Your task to perform on an android device: install app "Pluto TV - Live TV and Movies" Image 0: 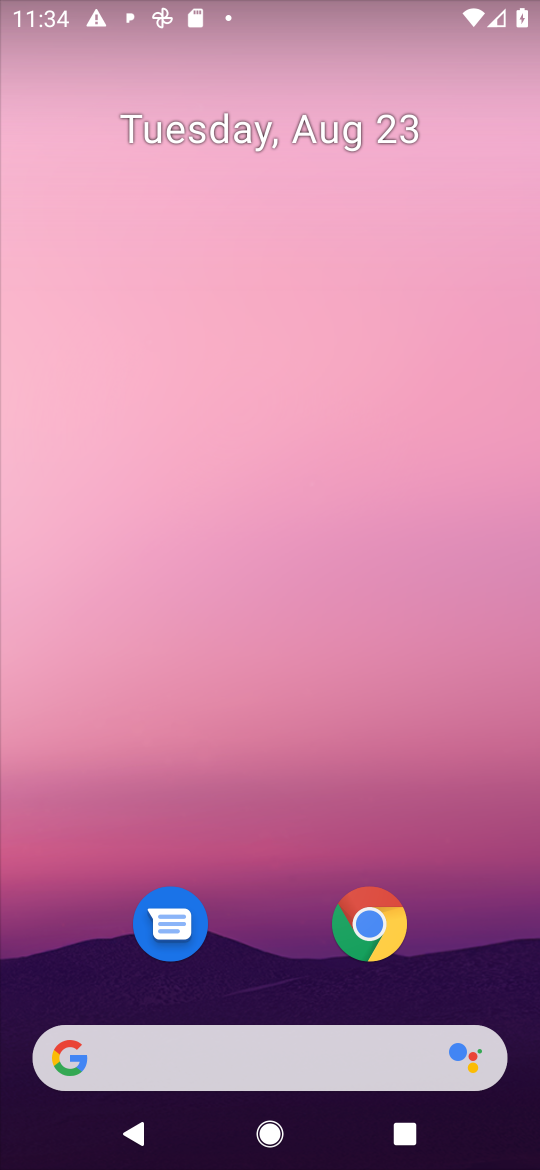
Step 0: press home button
Your task to perform on an android device: install app "Pluto TV - Live TV and Movies" Image 1: 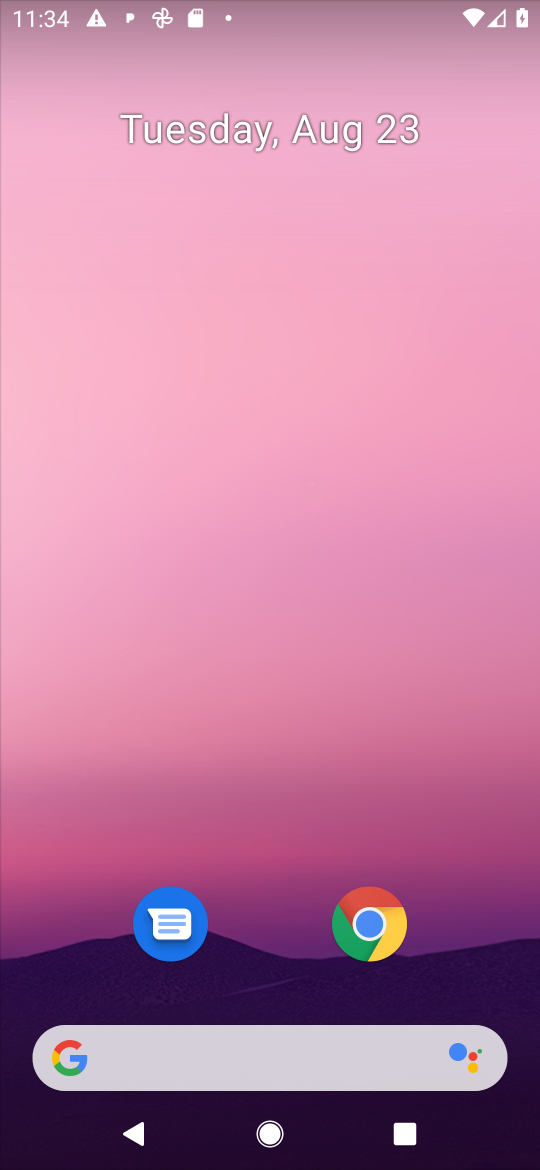
Step 1: drag from (477, 949) to (524, 81)
Your task to perform on an android device: install app "Pluto TV - Live TV and Movies" Image 2: 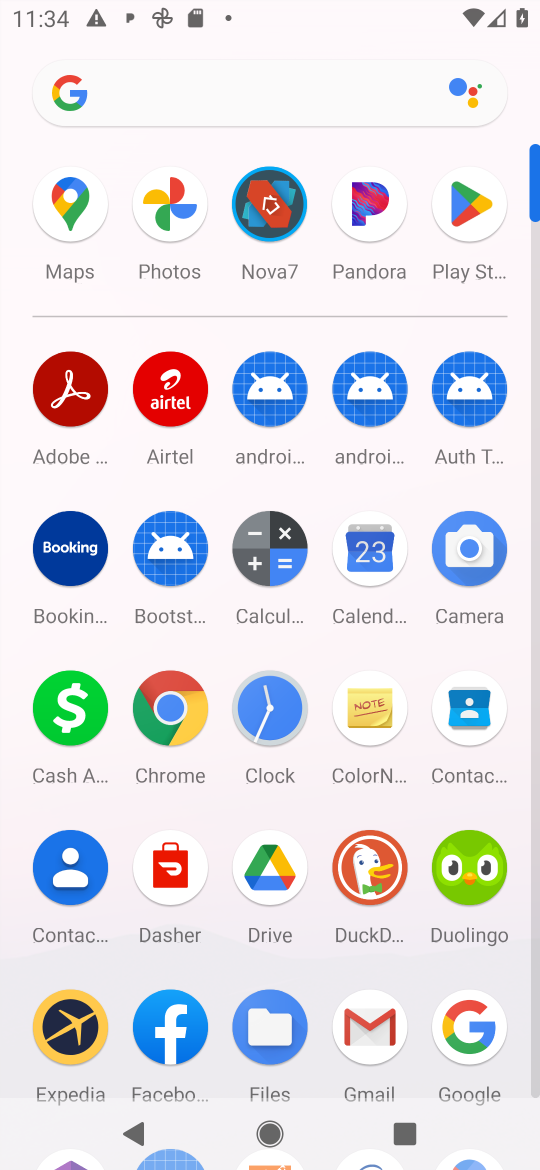
Step 2: click (476, 204)
Your task to perform on an android device: install app "Pluto TV - Live TV and Movies" Image 3: 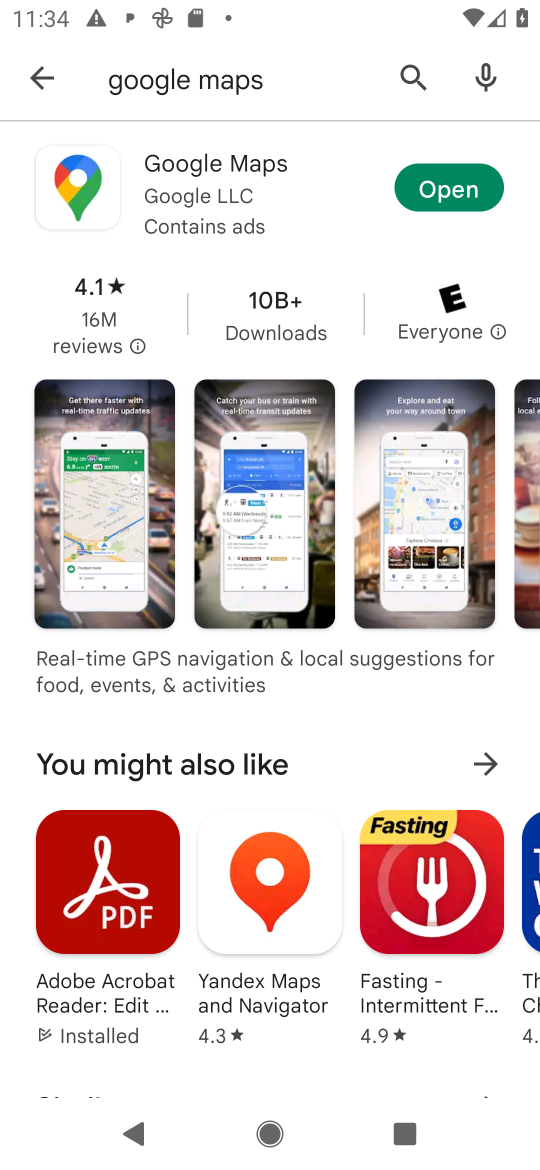
Step 3: press back button
Your task to perform on an android device: install app "Pluto TV - Live TV and Movies" Image 4: 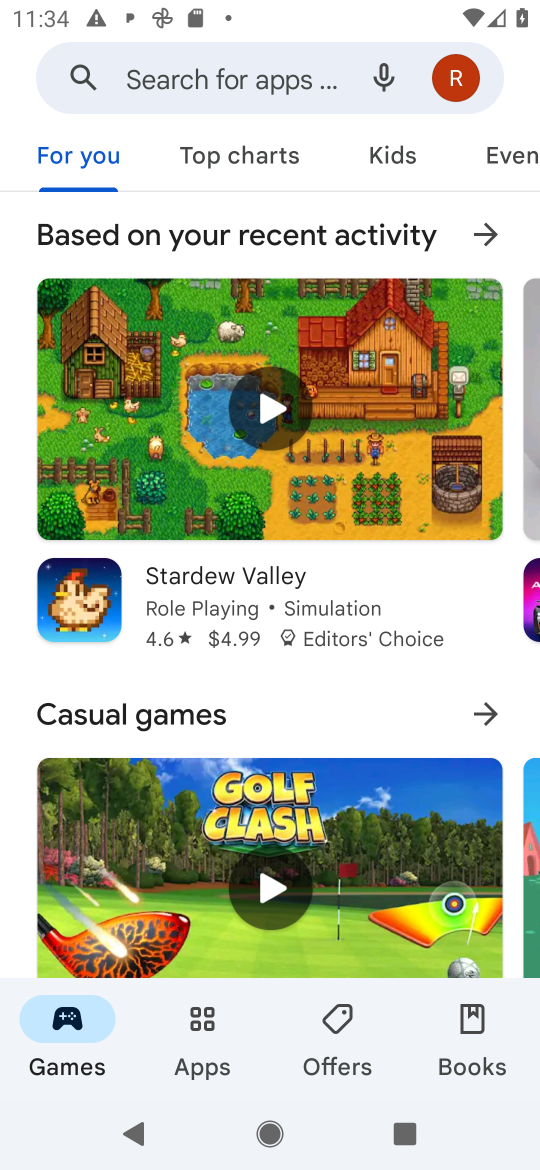
Step 4: click (192, 76)
Your task to perform on an android device: install app "Pluto TV - Live TV and Movies" Image 5: 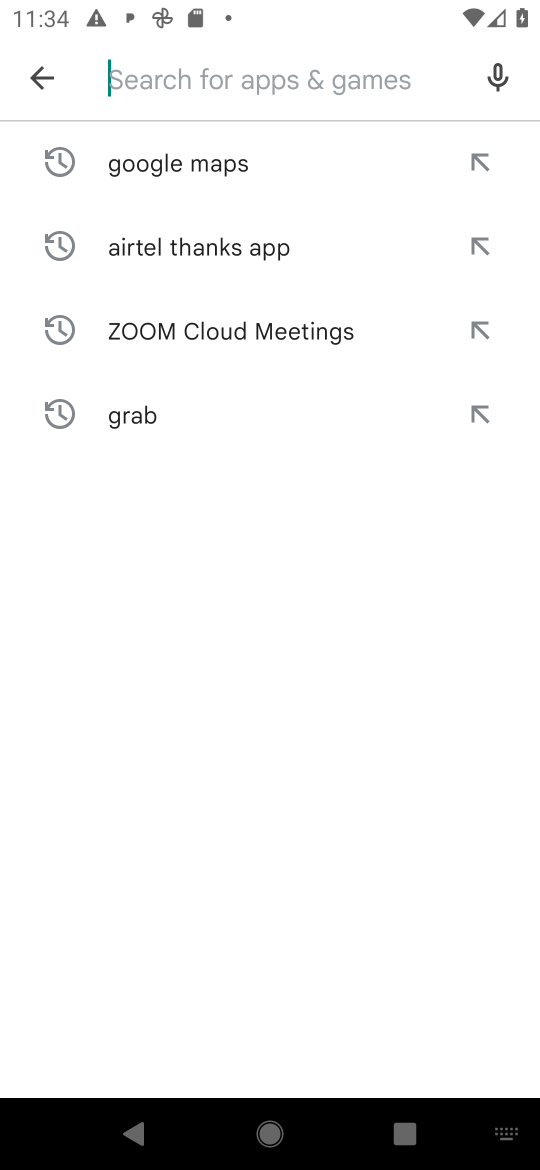
Step 5: press enter
Your task to perform on an android device: install app "Pluto TV - Live TV and Movies" Image 6: 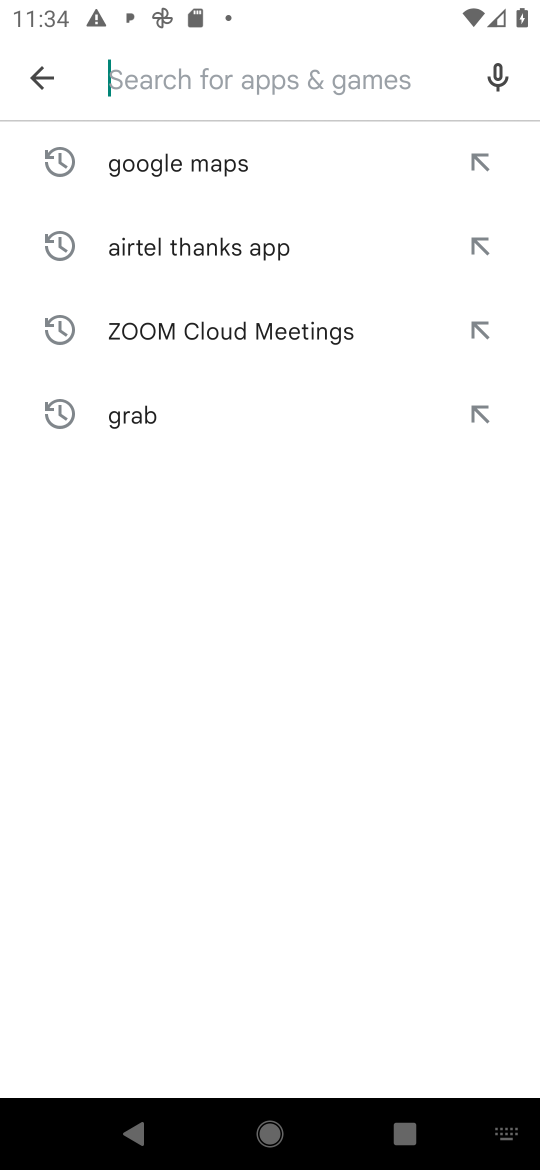
Step 6: type "Pluto TV - Live TV and Movies"
Your task to perform on an android device: install app "Pluto TV - Live TV and Movies" Image 7: 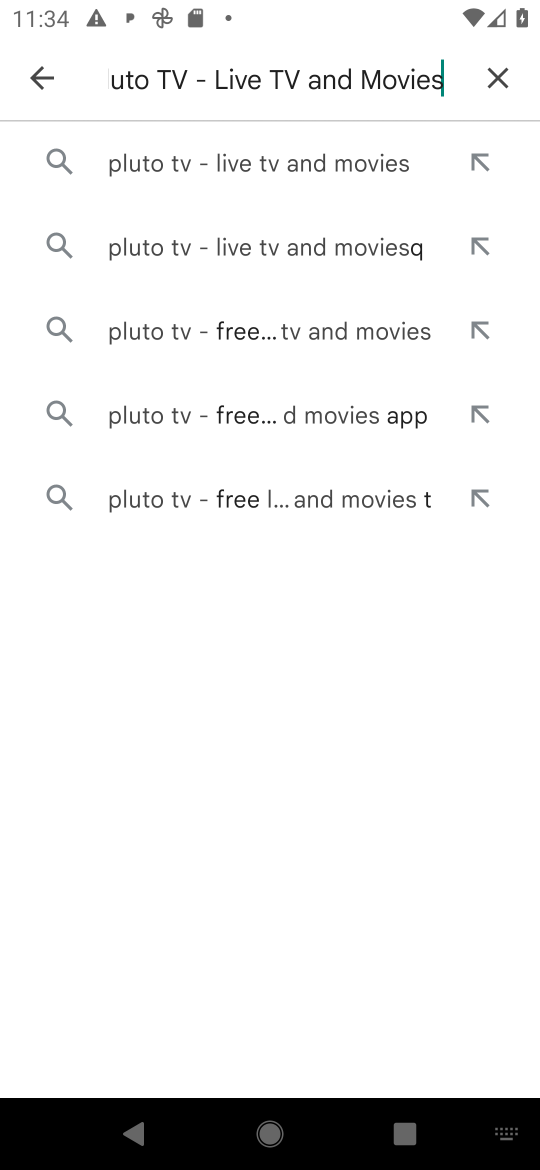
Step 7: click (289, 161)
Your task to perform on an android device: install app "Pluto TV - Live TV and Movies" Image 8: 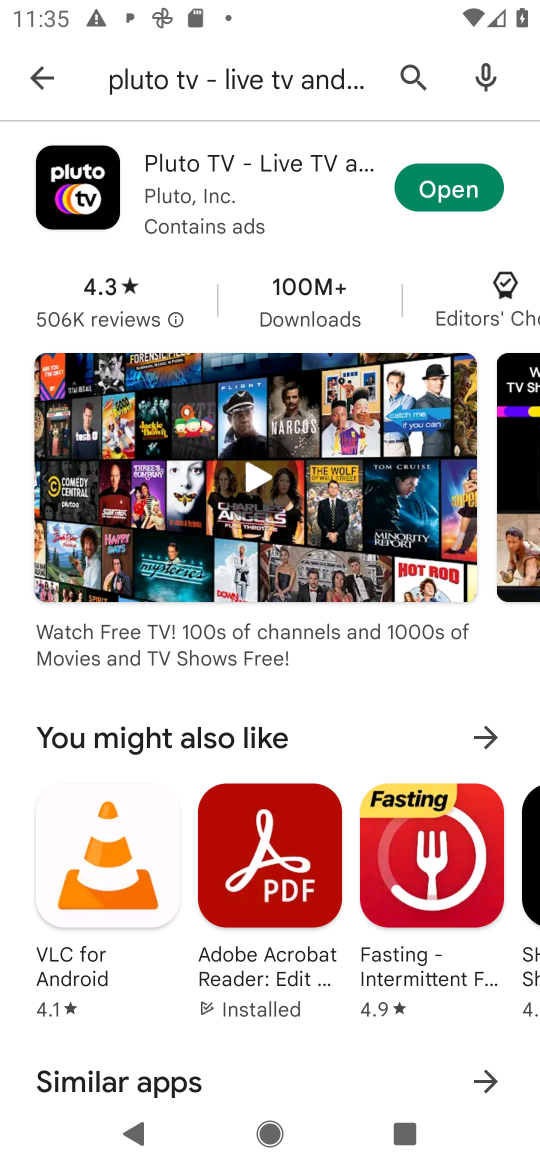
Step 8: task complete